Your task to perform on an android device: turn off wifi Image 0: 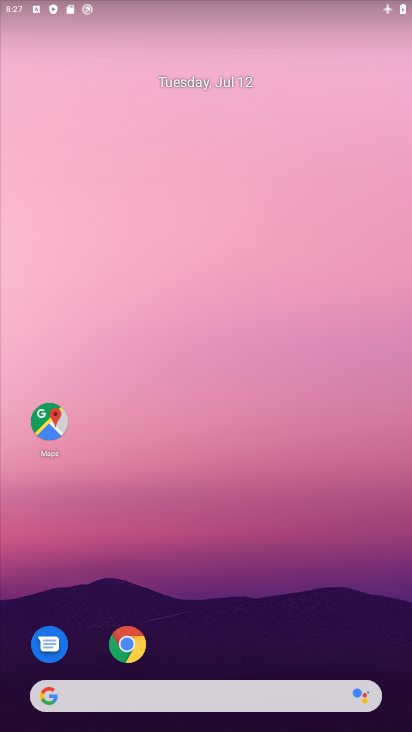
Step 0: drag from (365, 663) to (330, 216)
Your task to perform on an android device: turn off wifi Image 1: 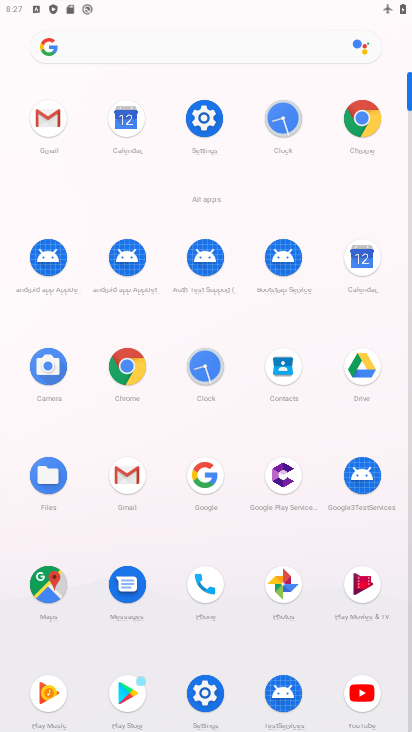
Step 1: click (203, 695)
Your task to perform on an android device: turn off wifi Image 2: 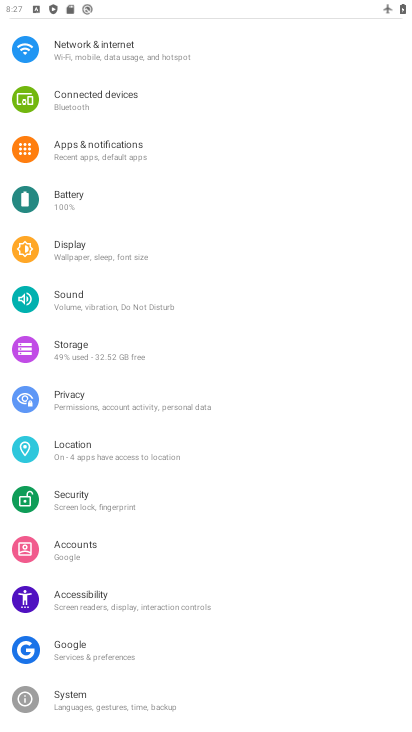
Step 2: drag from (274, 255) to (254, 389)
Your task to perform on an android device: turn off wifi Image 3: 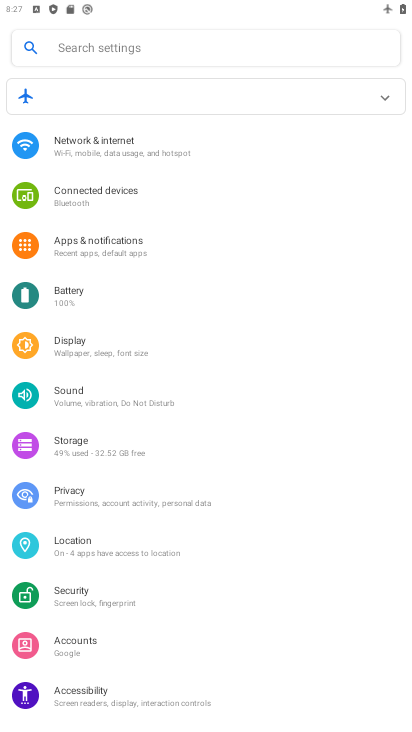
Step 3: click (84, 132)
Your task to perform on an android device: turn off wifi Image 4: 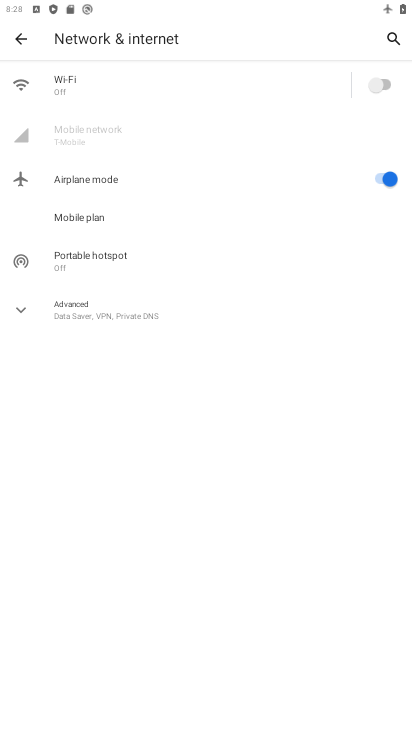
Step 4: task complete